Your task to perform on an android device: What's the weather going to be this weekend? Image 0: 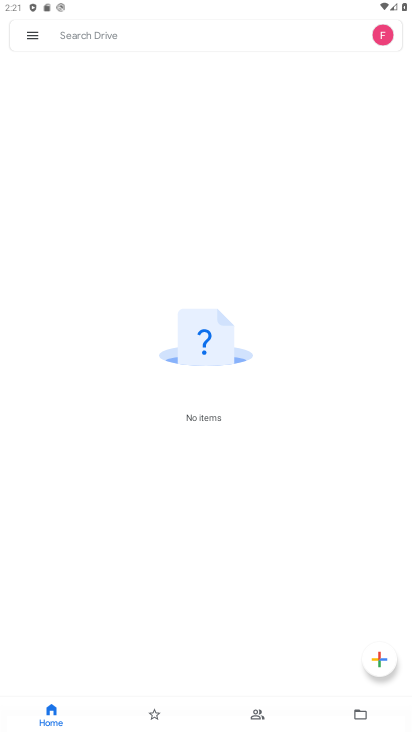
Step 0: press home button
Your task to perform on an android device: What's the weather going to be this weekend? Image 1: 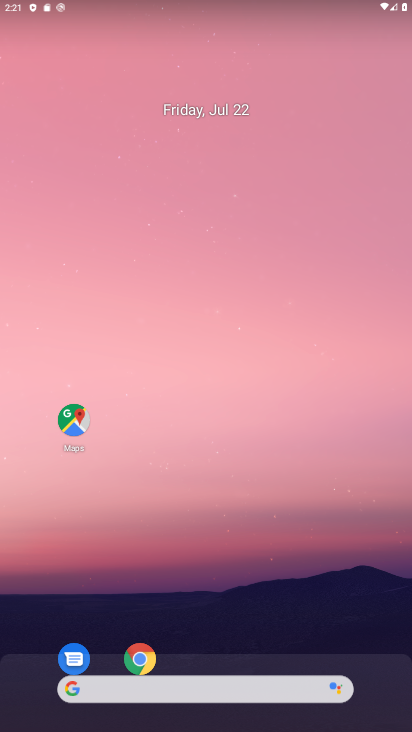
Step 1: click (183, 697)
Your task to perform on an android device: What's the weather going to be this weekend? Image 2: 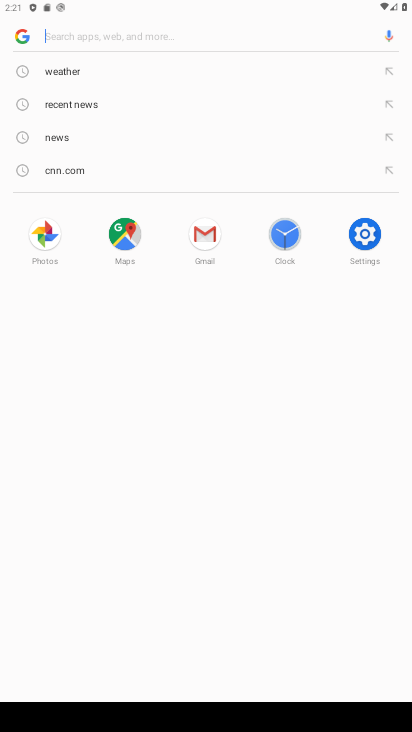
Step 2: click (63, 74)
Your task to perform on an android device: What's the weather going to be this weekend? Image 3: 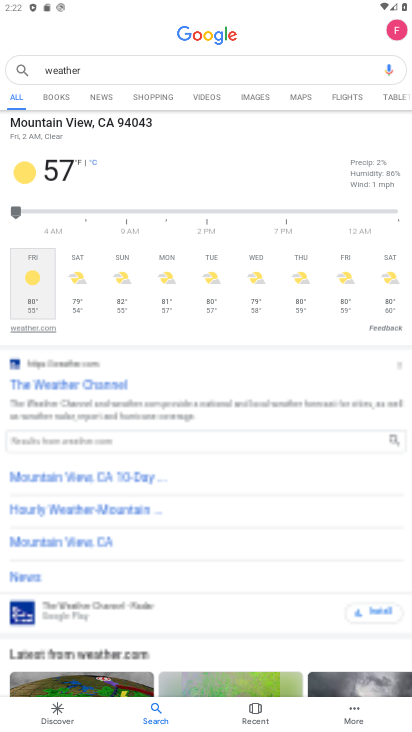
Step 3: task complete